Your task to perform on an android device: turn off location Image 0: 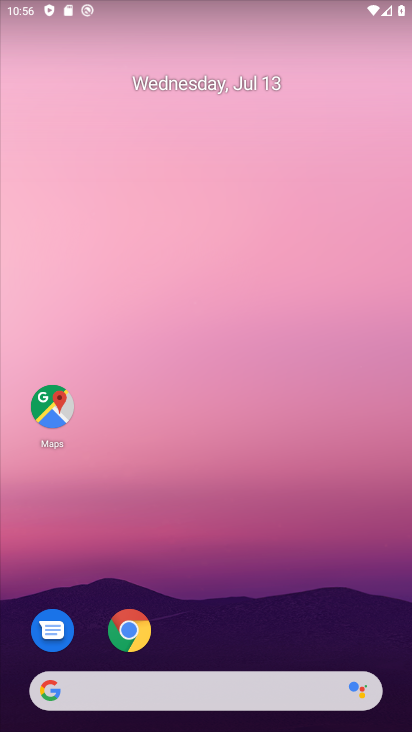
Step 0: drag from (222, 665) to (290, 199)
Your task to perform on an android device: turn off location Image 1: 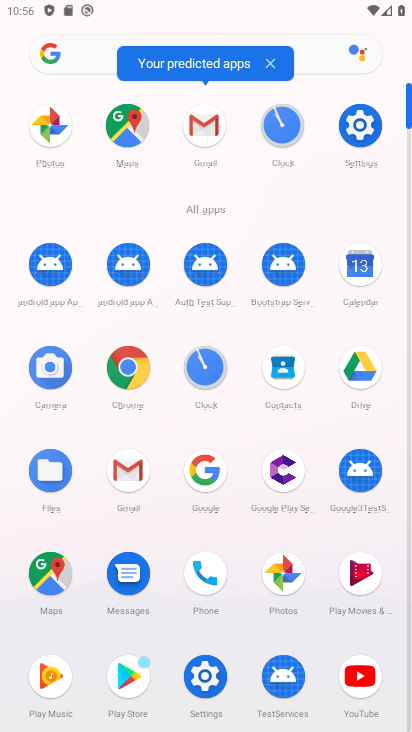
Step 1: click (196, 665)
Your task to perform on an android device: turn off location Image 2: 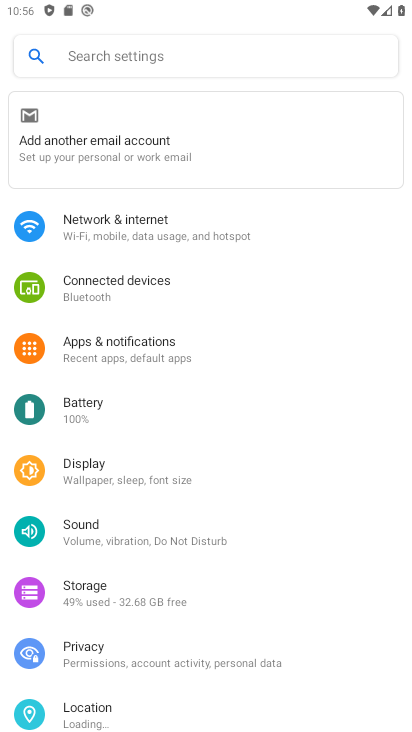
Step 2: drag from (105, 653) to (165, 508)
Your task to perform on an android device: turn off location Image 3: 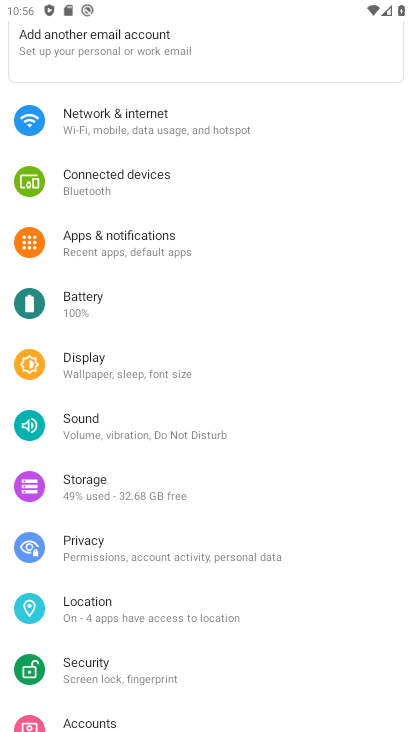
Step 3: click (121, 613)
Your task to perform on an android device: turn off location Image 4: 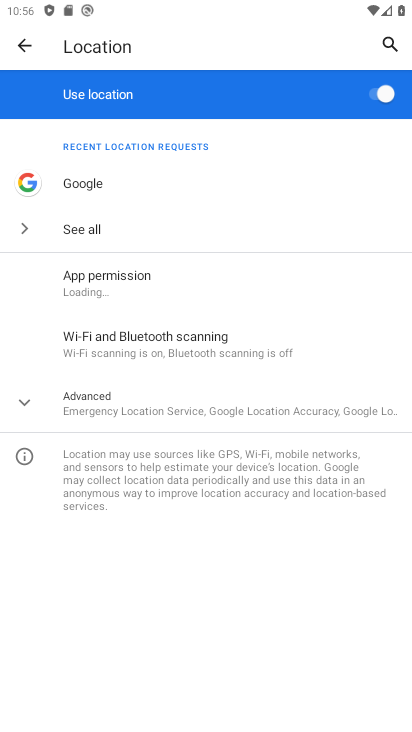
Step 4: click (377, 99)
Your task to perform on an android device: turn off location Image 5: 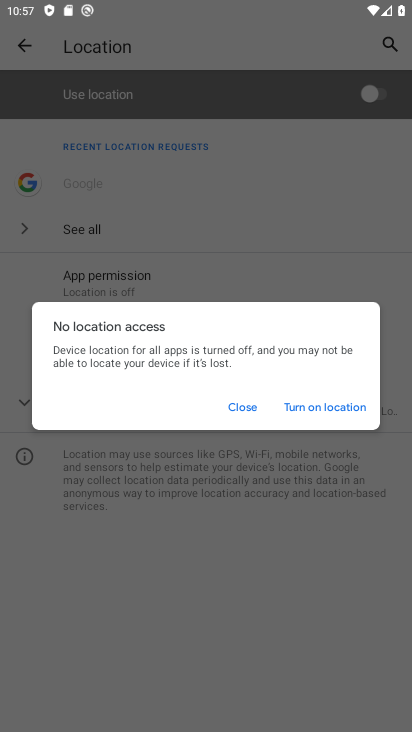
Step 5: click (249, 406)
Your task to perform on an android device: turn off location Image 6: 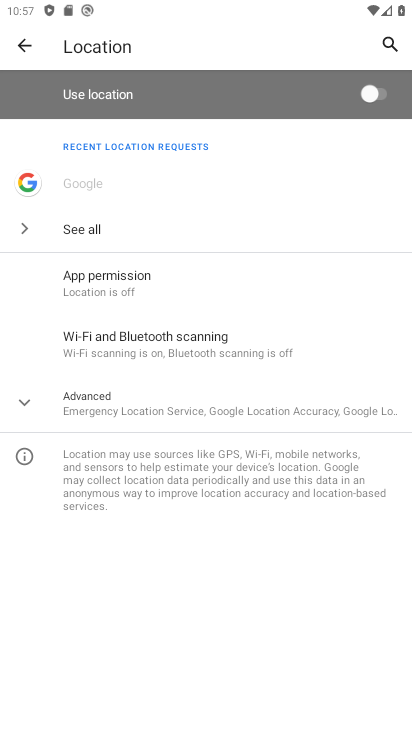
Step 6: task complete